Your task to perform on an android device: delete location history Image 0: 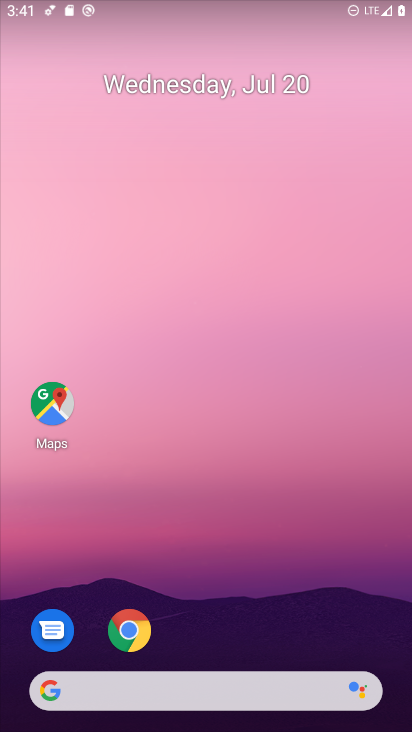
Step 0: press home button
Your task to perform on an android device: delete location history Image 1: 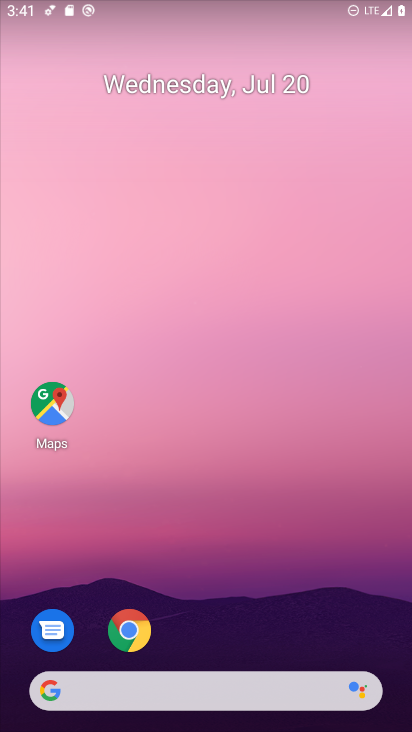
Step 1: click (51, 397)
Your task to perform on an android device: delete location history Image 2: 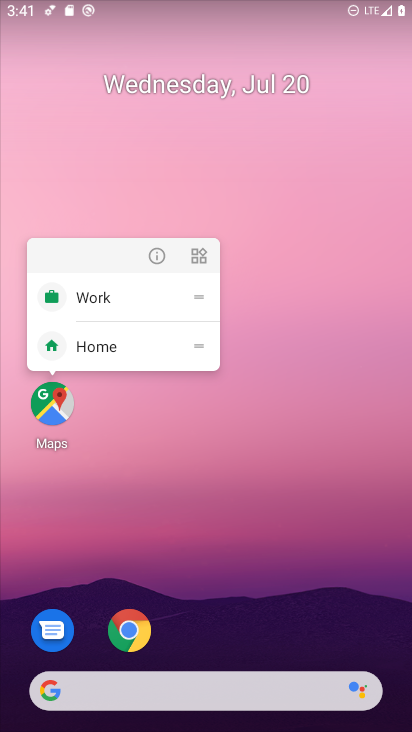
Step 2: click (50, 402)
Your task to perform on an android device: delete location history Image 3: 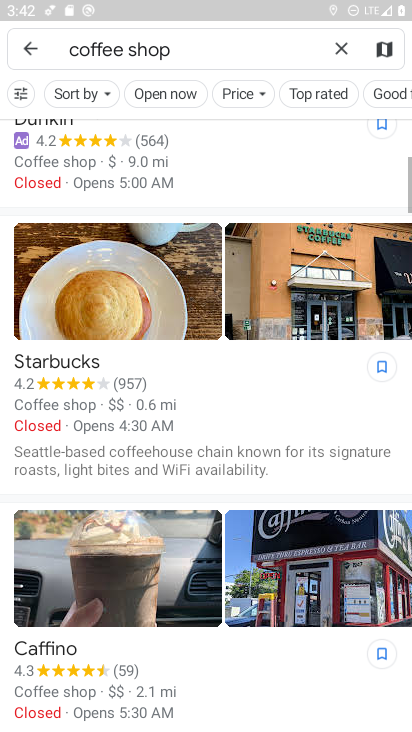
Step 3: click (28, 44)
Your task to perform on an android device: delete location history Image 4: 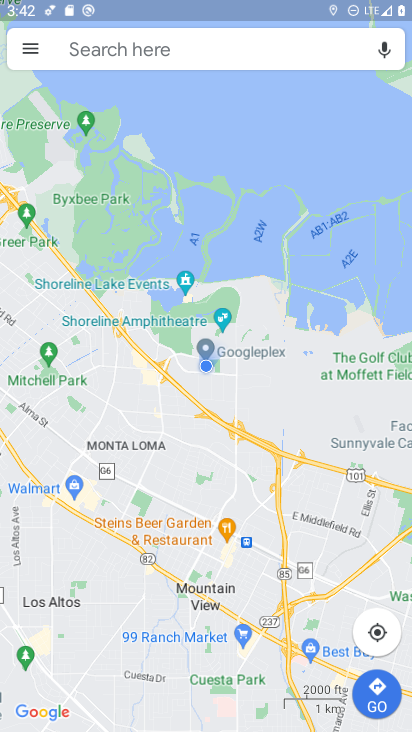
Step 4: click (29, 50)
Your task to perform on an android device: delete location history Image 5: 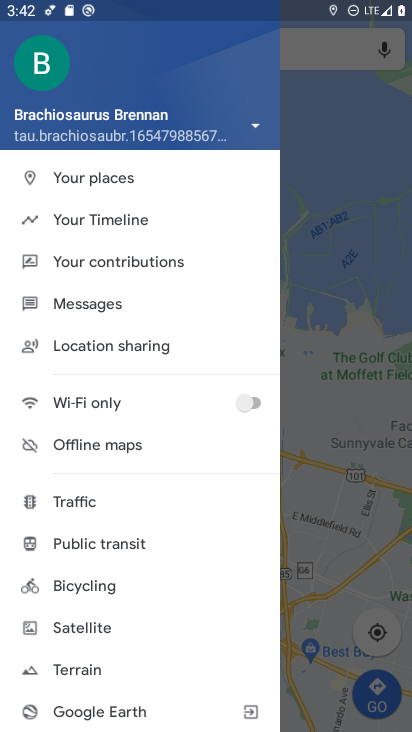
Step 5: click (125, 215)
Your task to perform on an android device: delete location history Image 6: 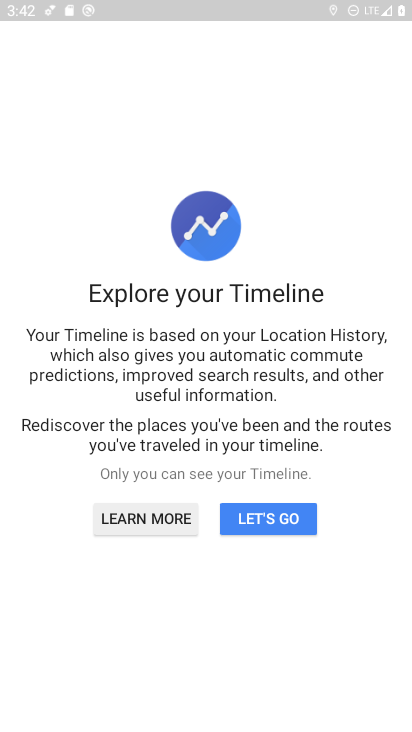
Step 6: click (268, 520)
Your task to perform on an android device: delete location history Image 7: 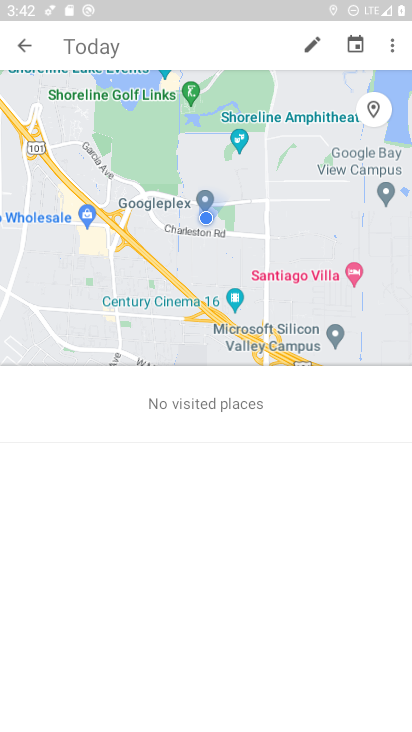
Step 7: click (395, 41)
Your task to perform on an android device: delete location history Image 8: 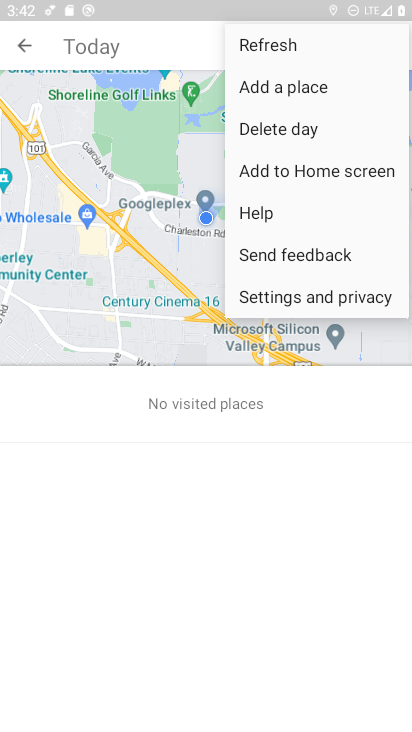
Step 8: click (313, 287)
Your task to perform on an android device: delete location history Image 9: 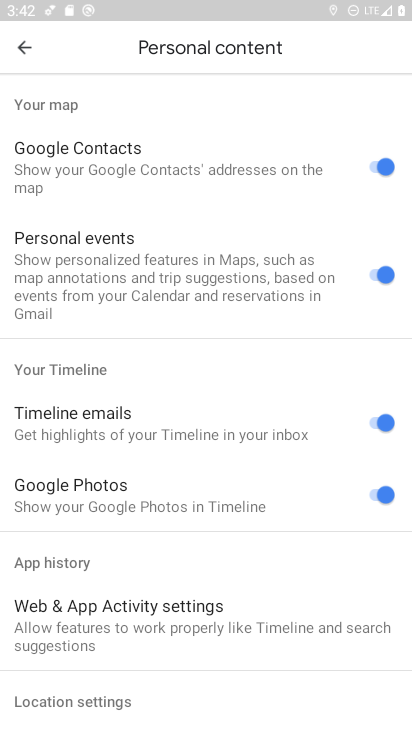
Step 9: drag from (145, 671) to (174, 164)
Your task to perform on an android device: delete location history Image 10: 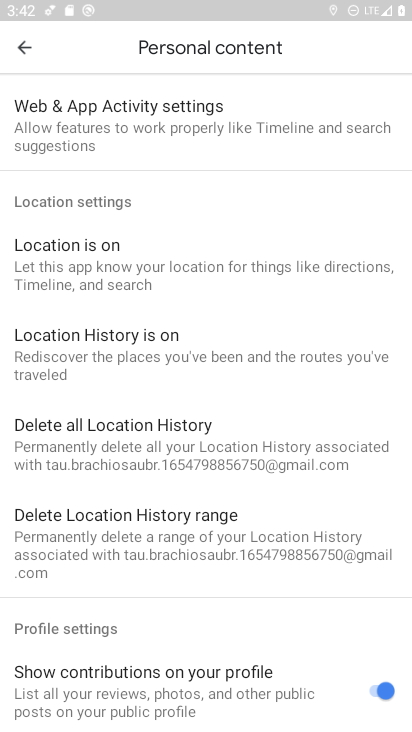
Step 10: click (160, 440)
Your task to perform on an android device: delete location history Image 11: 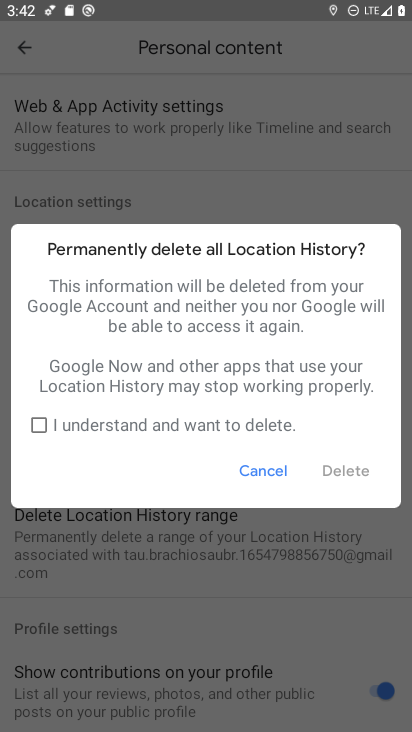
Step 11: click (43, 425)
Your task to perform on an android device: delete location history Image 12: 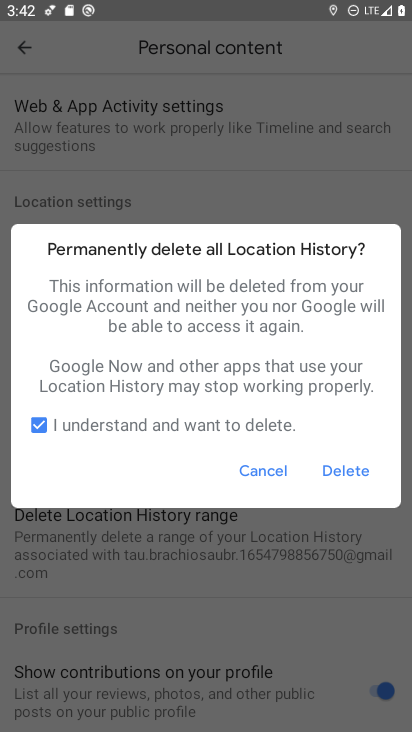
Step 12: click (335, 471)
Your task to perform on an android device: delete location history Image 13: 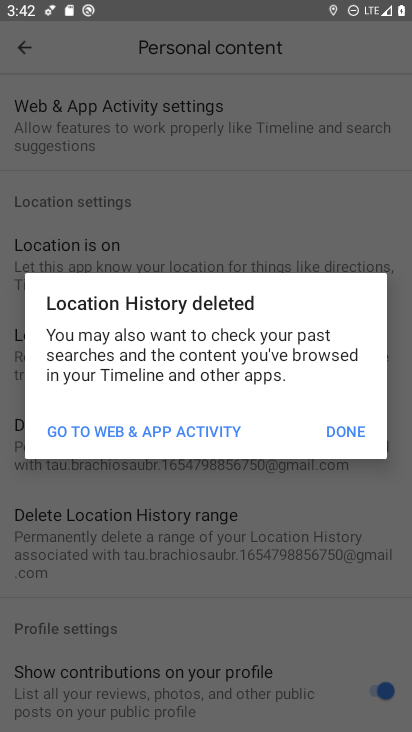
Step 13: task complete